Your task to perform on an android device: Set the phone to "Do not disturb". Image 0: 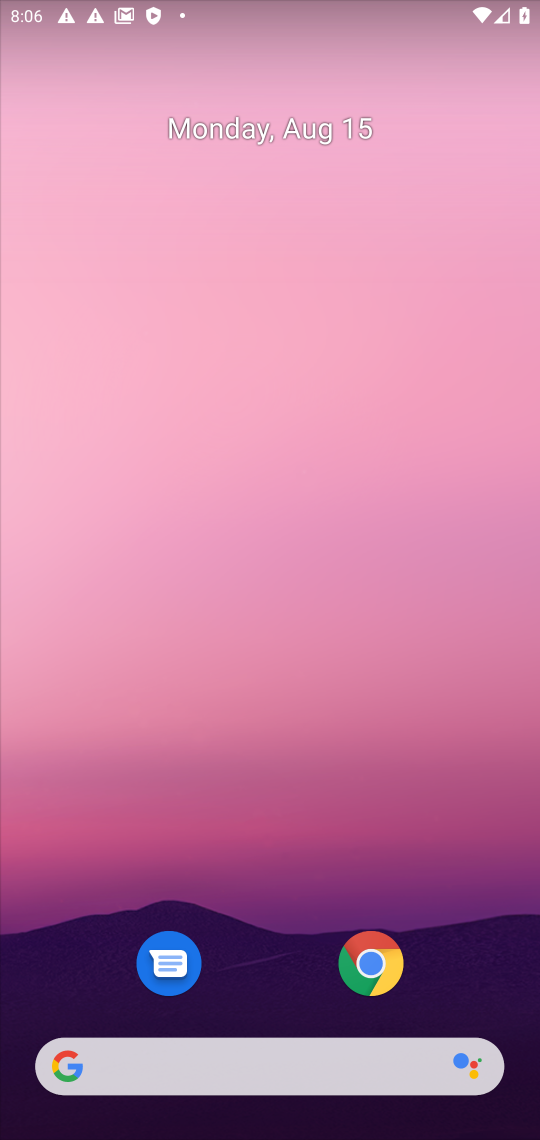
Step 0: drag from (245, 9) to (184, 622)
Your task to perform on an android device: Set the phone to "Do not disturb". Image 1: 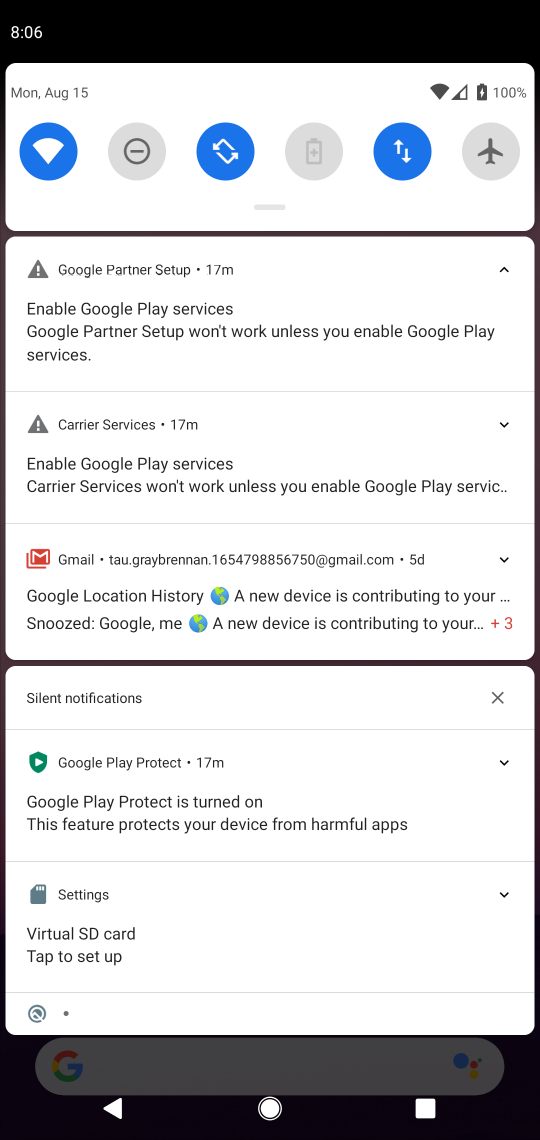
Step 1: click (147, 158)
Your task to perform on an android device: Set the phone to "Do not disturb". Image 2: 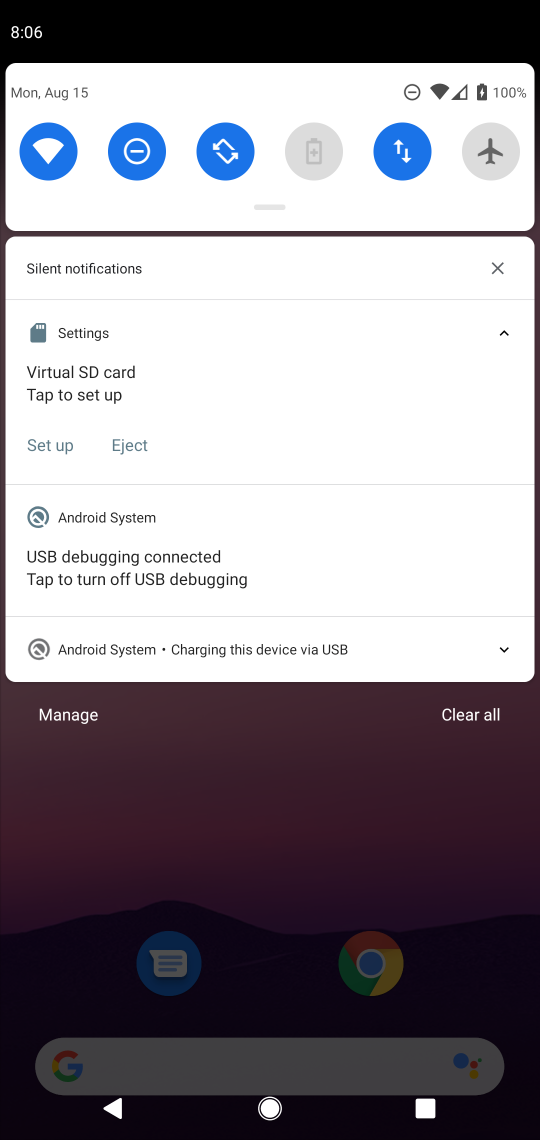
Step 2: task complete